Your task to perform on an android device: Open Google Image 0: 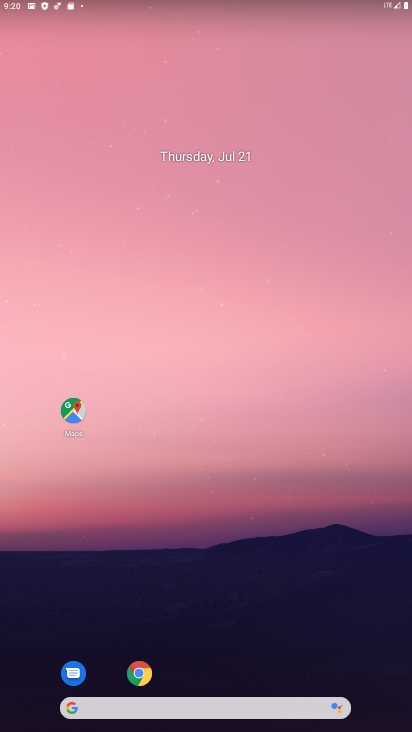
Step 0: drag from (206, 670) to (223, 71)
Your task to perform on an android device: Open Google Image 1: 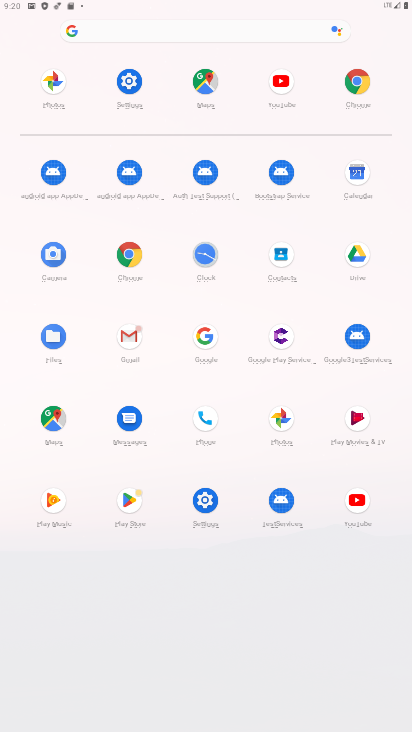
Step 1: click (205, 327)
Your task to perform on an android device: Open Google Image 2: 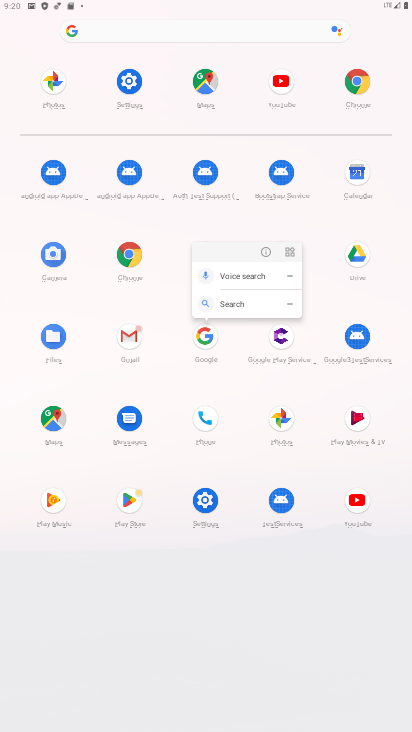
Step 2: click (258, 255)
Your task to perform on an android device: Open Google Image 3: 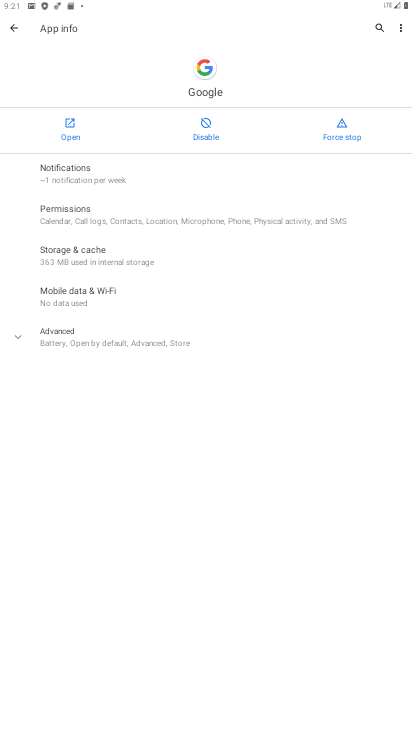
Step 3: click (62, 131)
Your task to perform on an android device: Open Google Image 4: 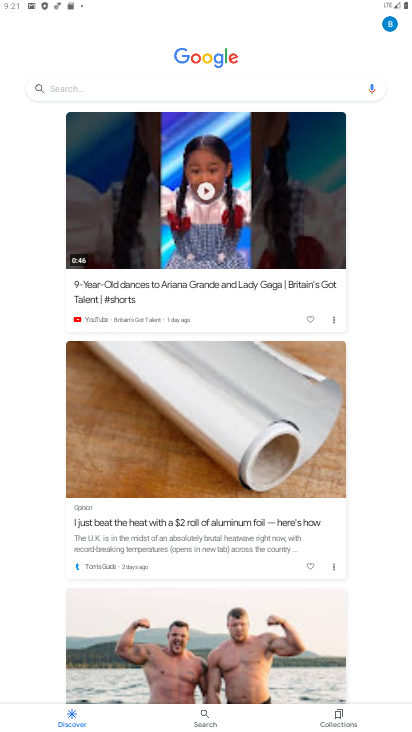
Step 4: task complete